Your task to perform on an android device: turn on translation in the chrome app Image 0: 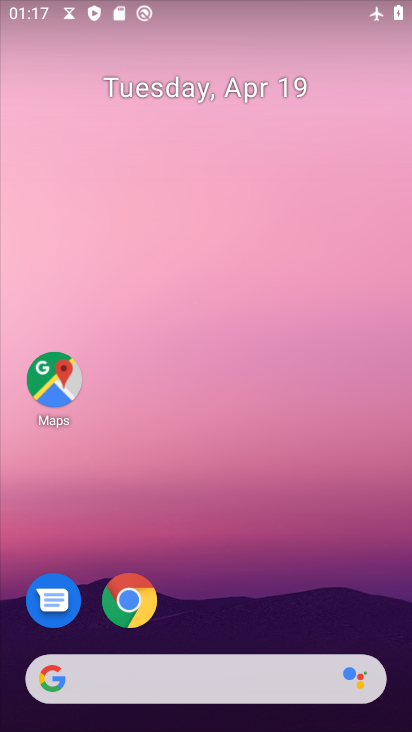
Step 0: click (125, 599)
Your task to perform on an android device: turn on translation in the chrome app Image 1: 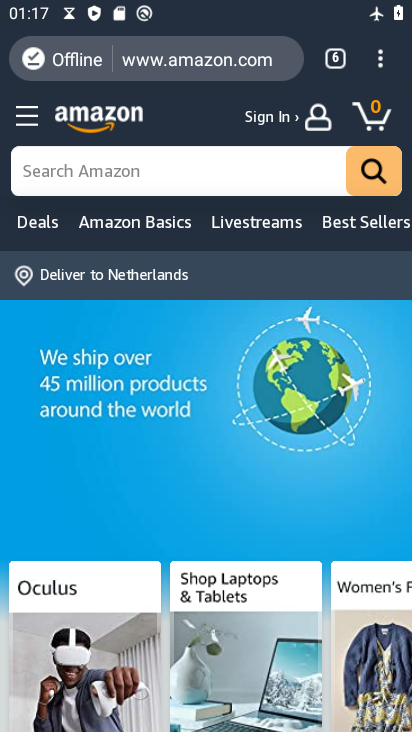
Step 1: click (381, 62)
Your task to perform on an android device: turn on translation in the chrome app Image 2: 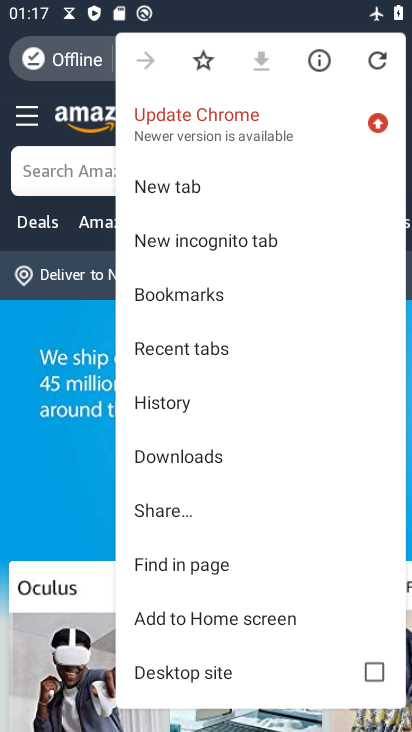
Step 2: drag from (222, 574) to (216, 190)
Your task to perform on an android device: turn on translation in the chrome app Image 3: 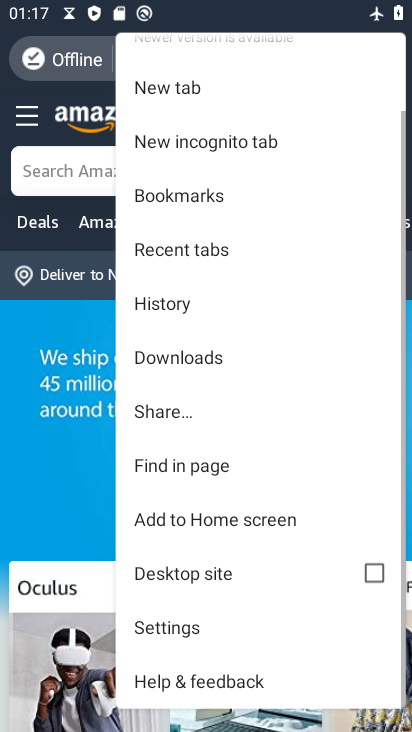
Step 3: click (192, 622)
Your task to perform on an android device: turn on translation in the chrome app Image 4: 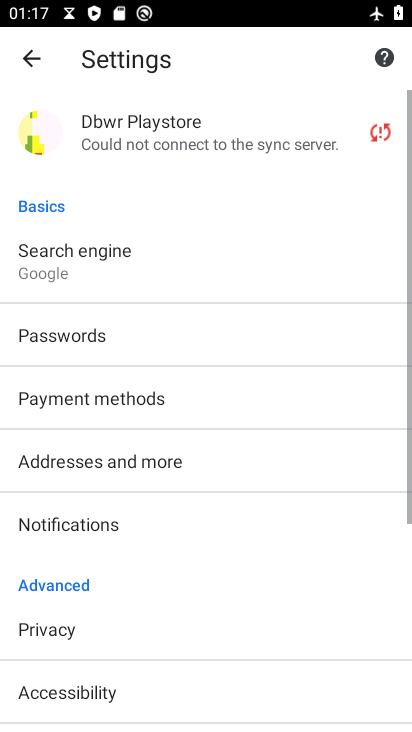
Step 4: drag from (203, 634) to (195, 377)
Your task to perform on an android device: turn on translation in the chrome app Image 5: 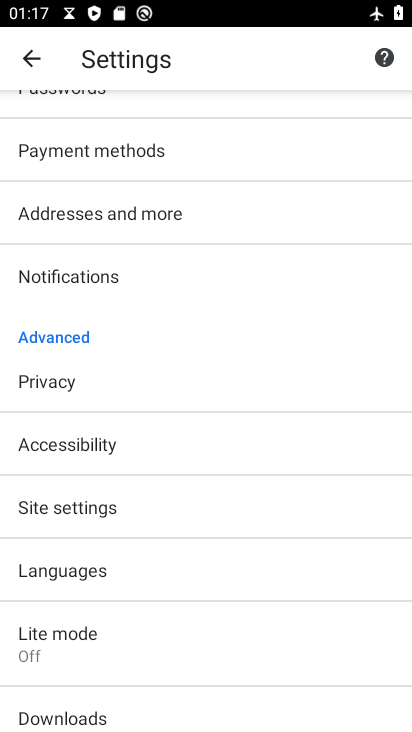
Step 5: click (145, 578)
Your task to perform on an android device: turn on translation in the chrome app Image 6: 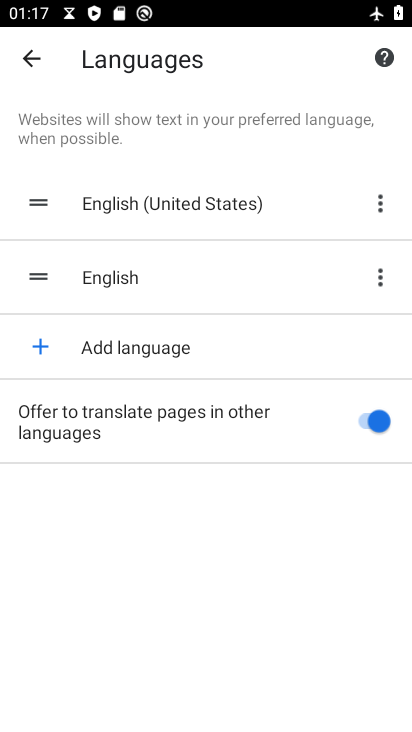
Step 6: task complete